Your task to perform on an android device: Open sound settings Image 0: 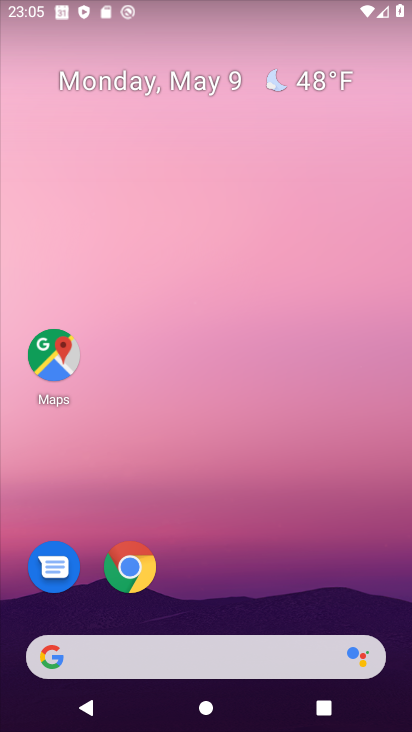
Step 0: drag from (255, 583) to (259, 164)
Your task to perform on an android device: Open sound settings Image 1: 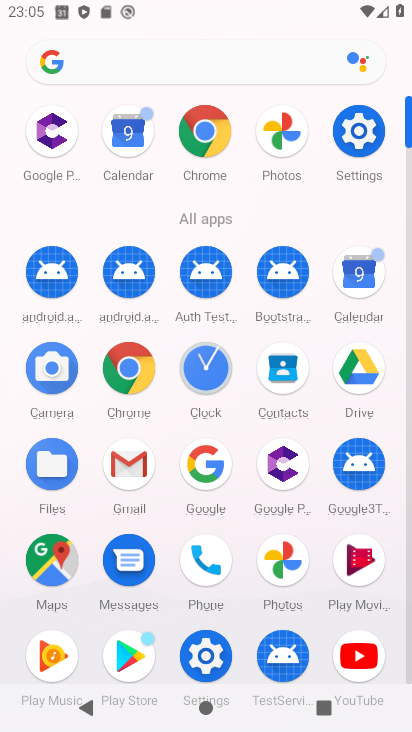
Step 1: click (359, 128)
Your task to perform on an android device: Open sound settings Image 2: 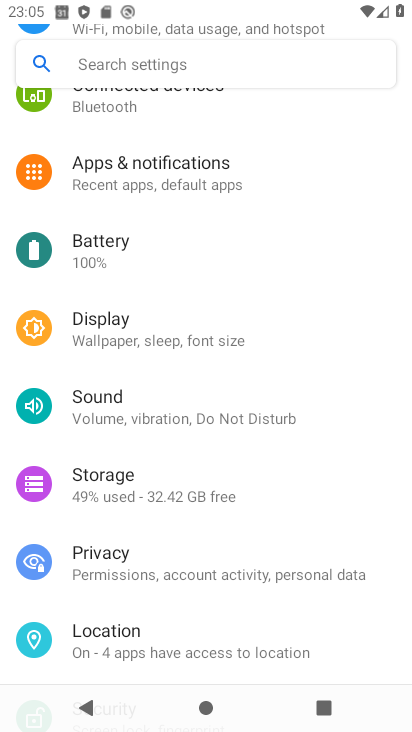
Step 2: click (116, 409)
Your task to perform on an android device: Open sound settings Image 3: 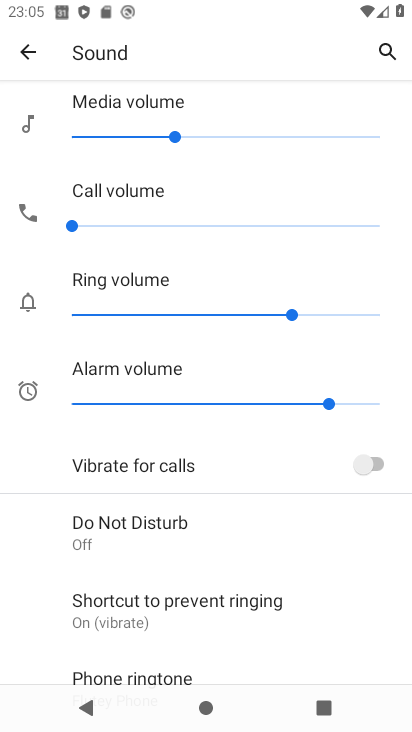
Step 3: task complete